Your task to perform on an android device: open app "Instagram" (install if not already installed) and go to login screen Image 0: 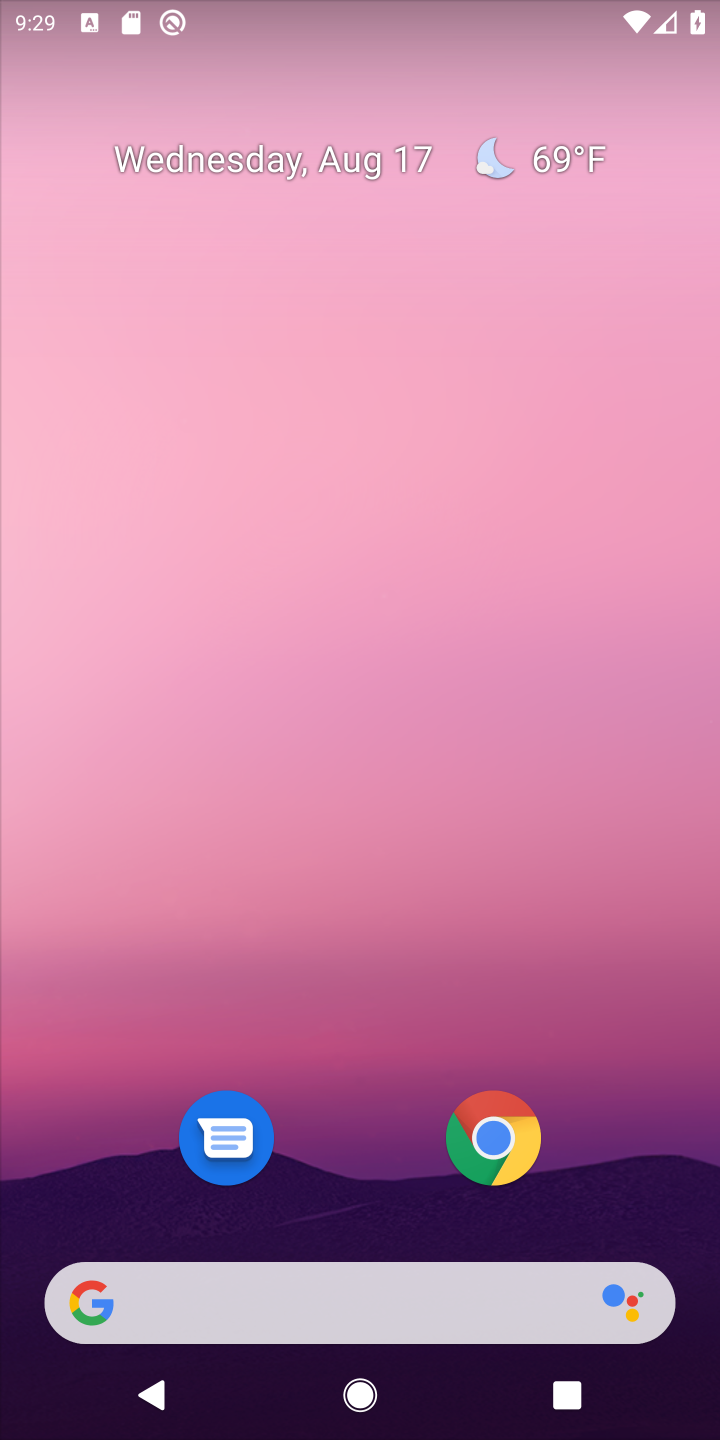
Step 0: drag from (423, 691) to (423, 193)
Your task to perform on an android device: open app "Instagram" (install if not already installed) and go to login screen Image 1: 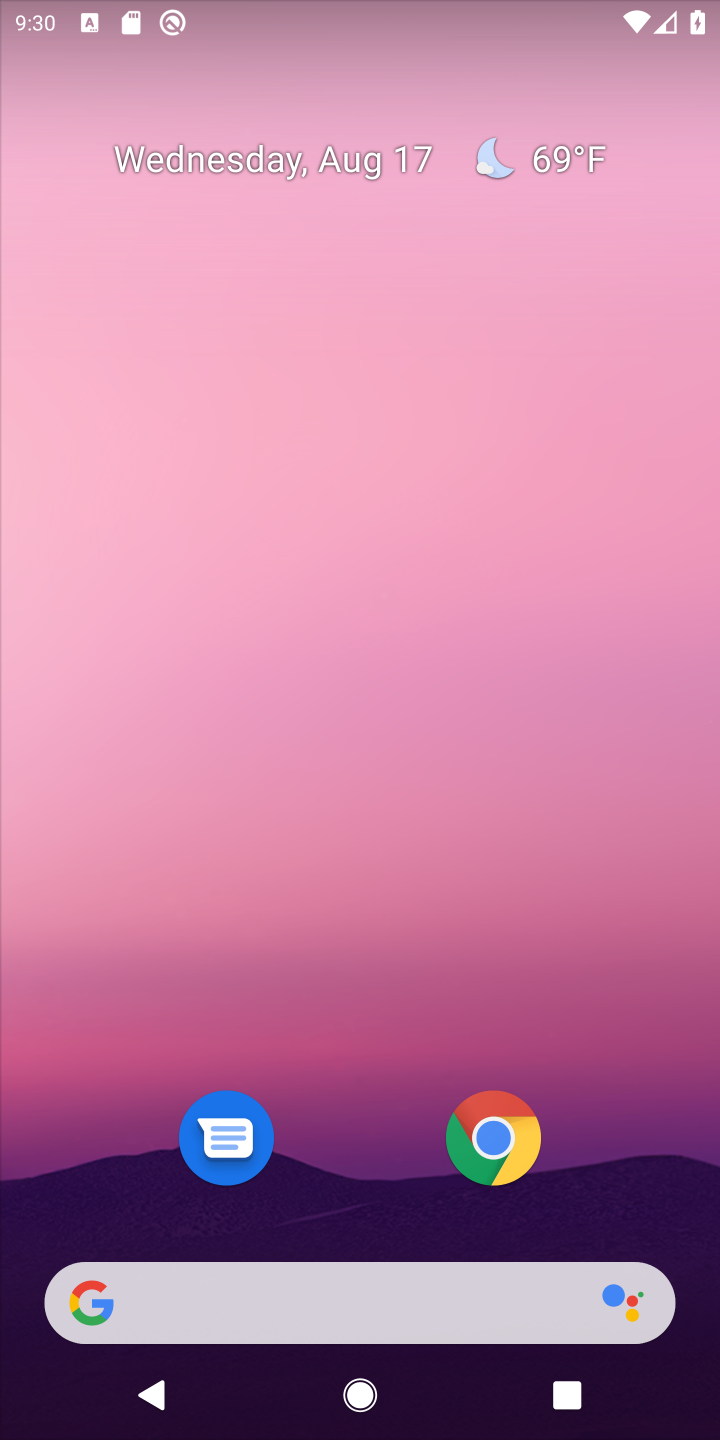
Step 1: drag from (327, 708) to (327, 361)
Your task to perform on an android device: open app "Instagram" (install if not already installed) and go to login screen Image 2: 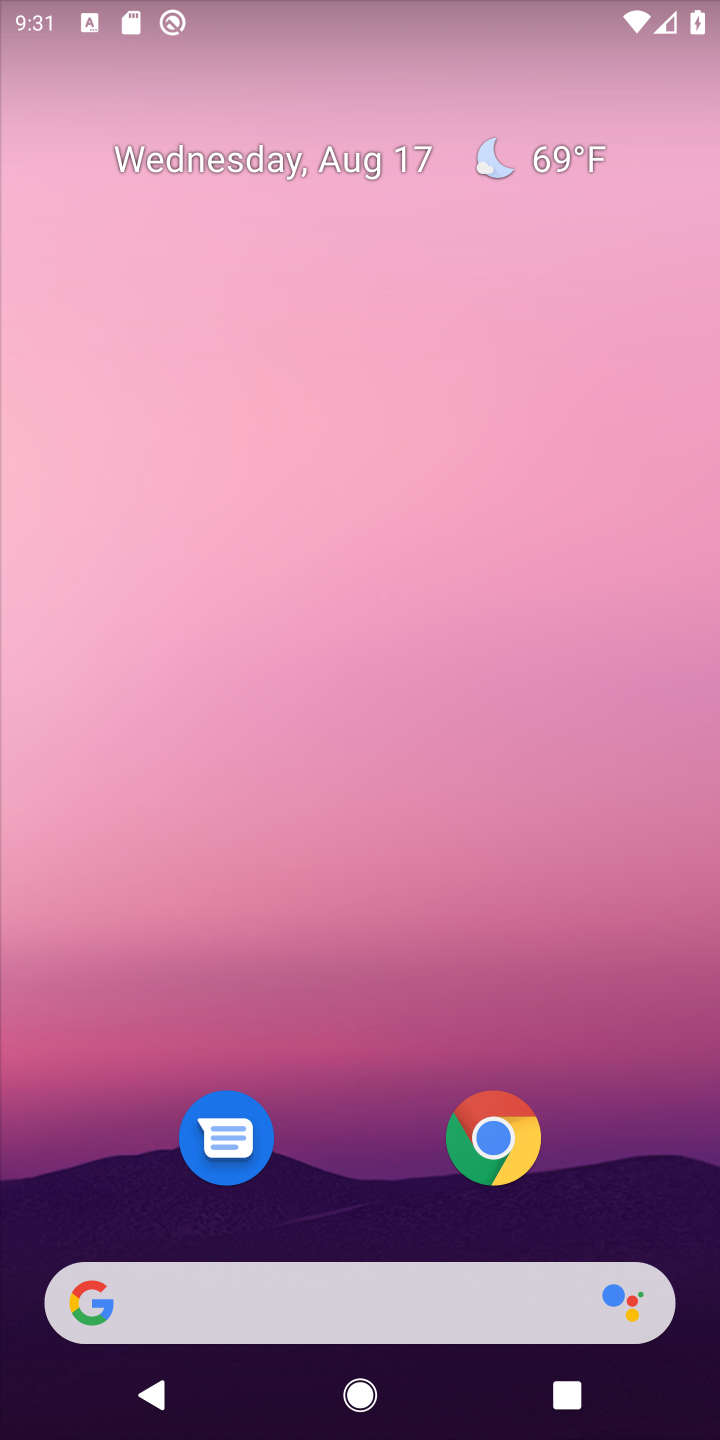
Step 2: drag from (359, 1228) to (364, 200)
Your task to perform on an android device: open app "Instagram" (install if not already installed) and go to login screen Image 3: 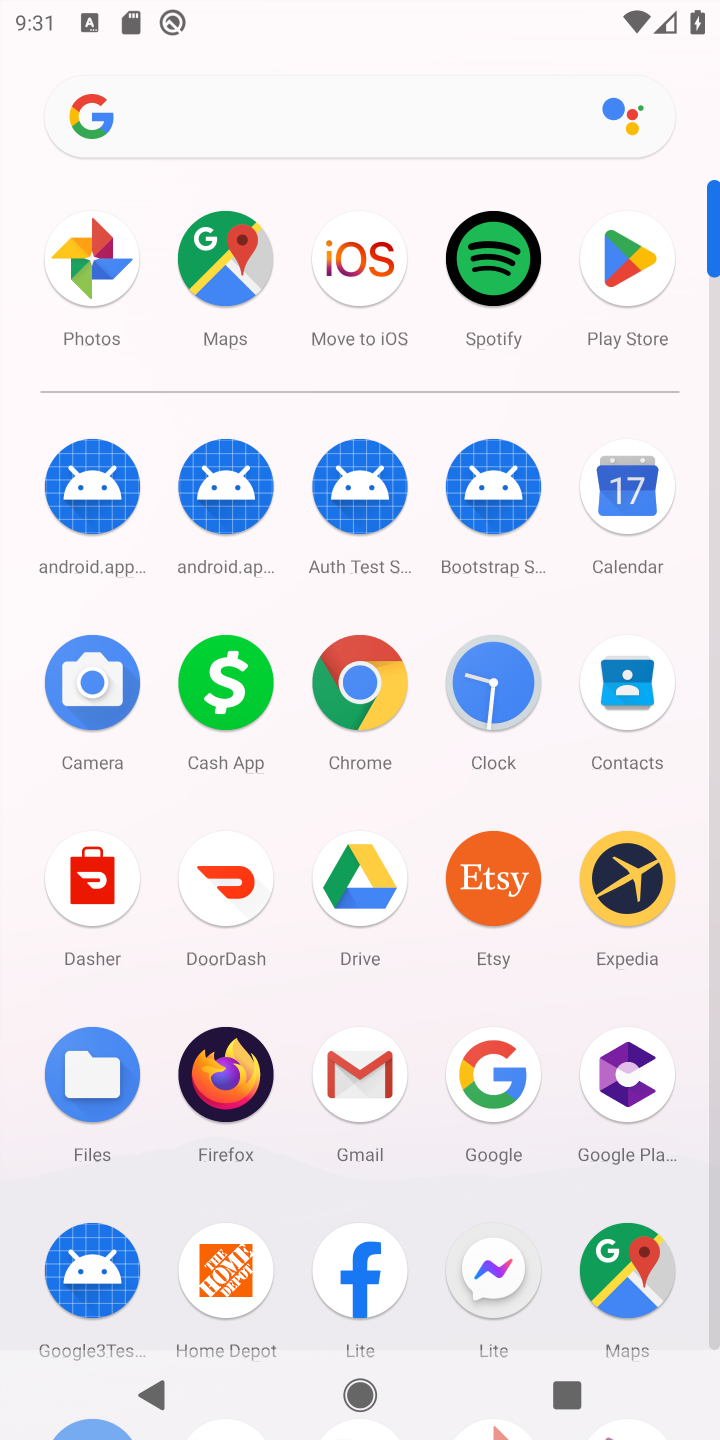
Step 3: click (647, 261)
Your task to perform on an android device: open app "Instagram" (install if not already installed) and go to login screen Image 4: 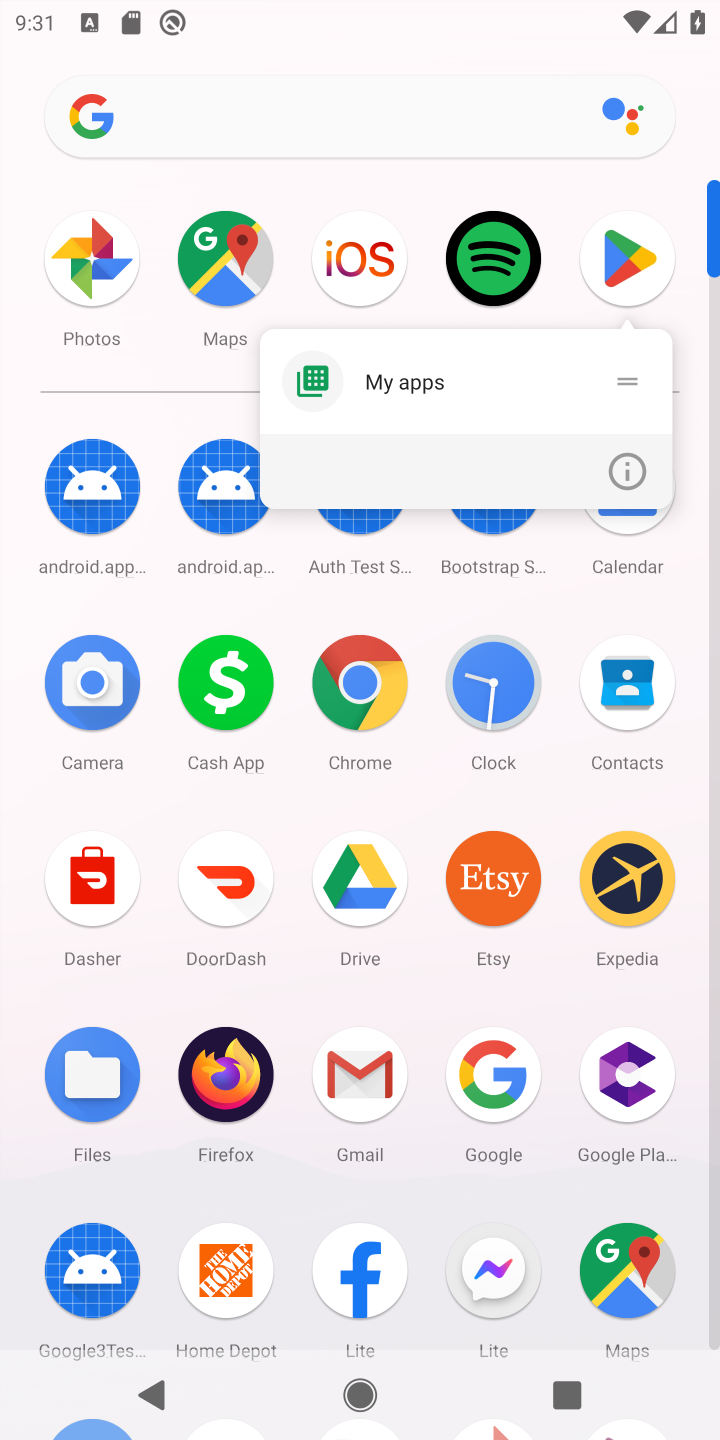
Step 4: click (632, 277)
Your task to perform on an android device: open app "Instagram" (install if not already installed) and go to login screen Image 5: 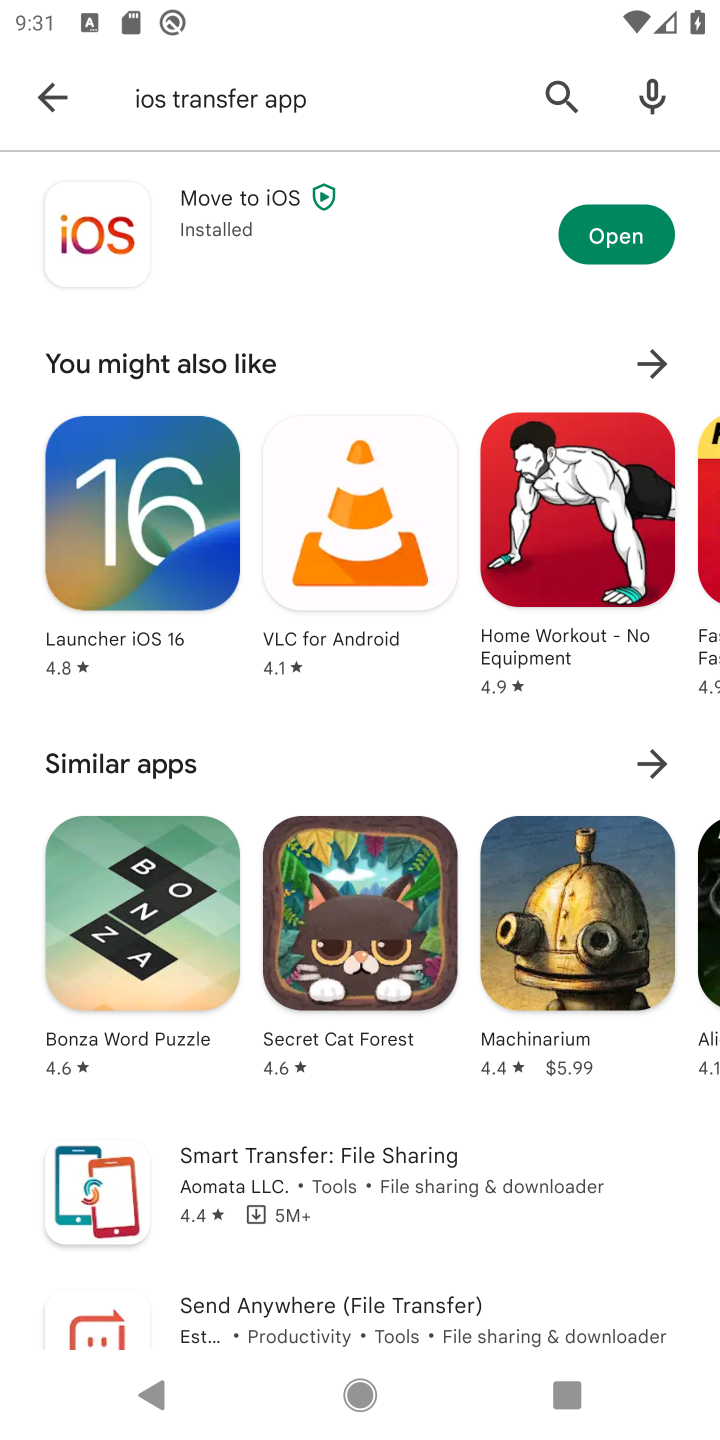
Step 5: click (54, 100)
Your task to perform on an android device: open app "Instagram" (install if not already installed) and go to login screen Image 6: 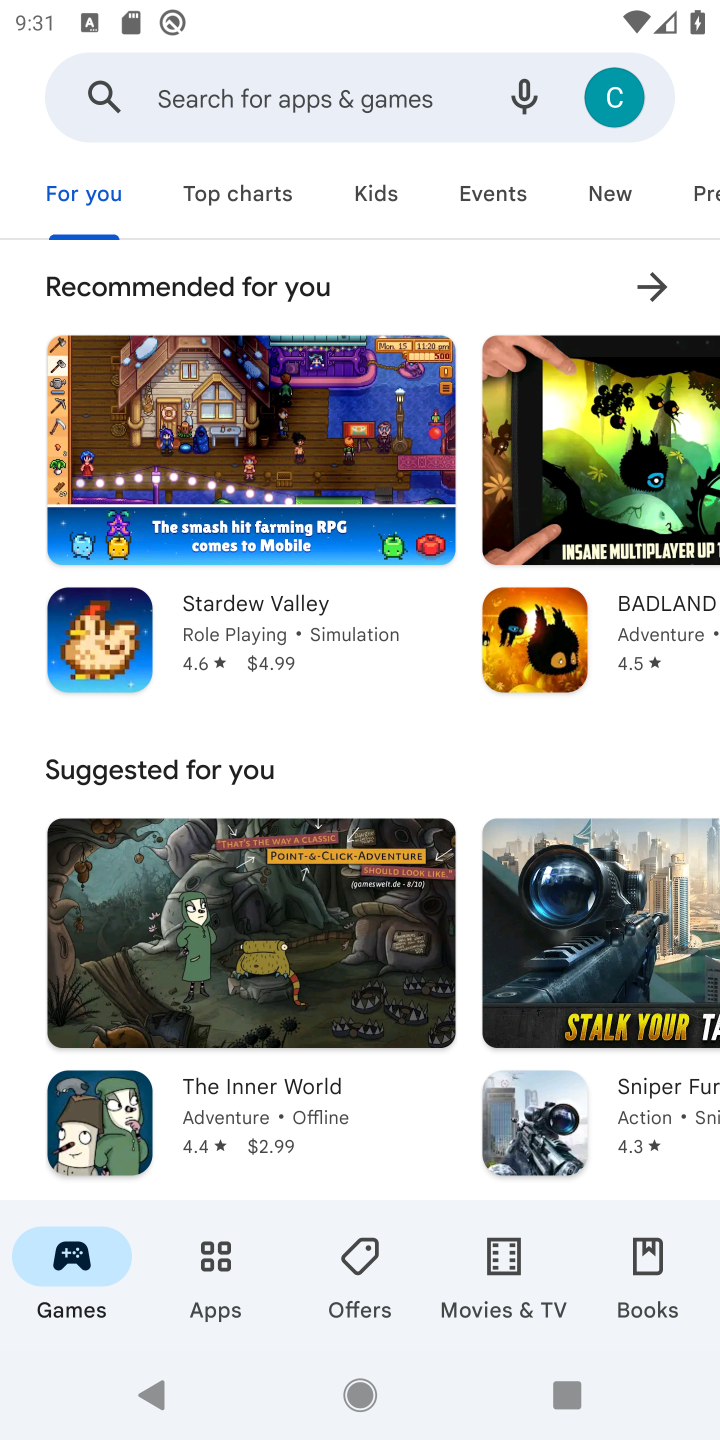
Step 6: click (250, 71)
Your task to perform on an android device: open app "Instagram" (install if not already installed) and go to login screen Image 7: 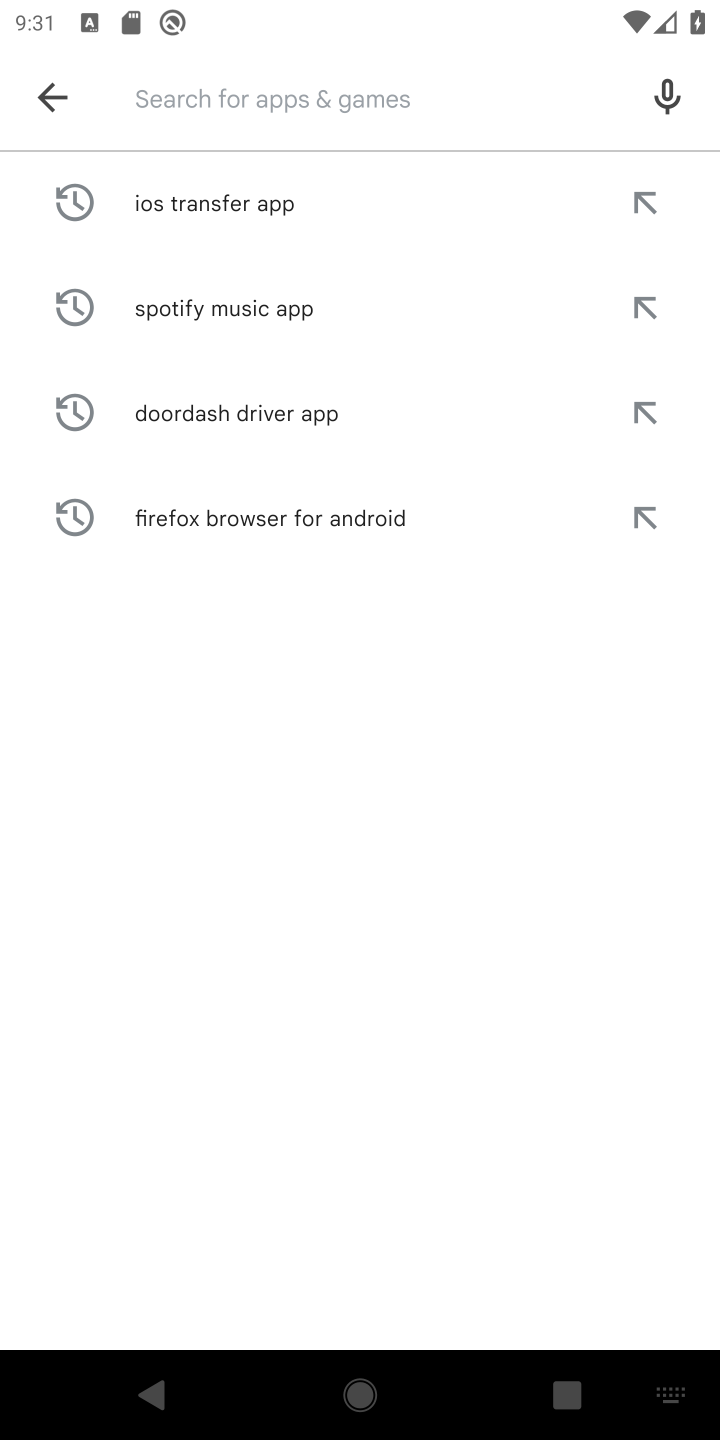
Step 7: type "instagram "
Your task to perform on an android device: open app "Instagram" (install if not already installed) and go to login screen Image 8: 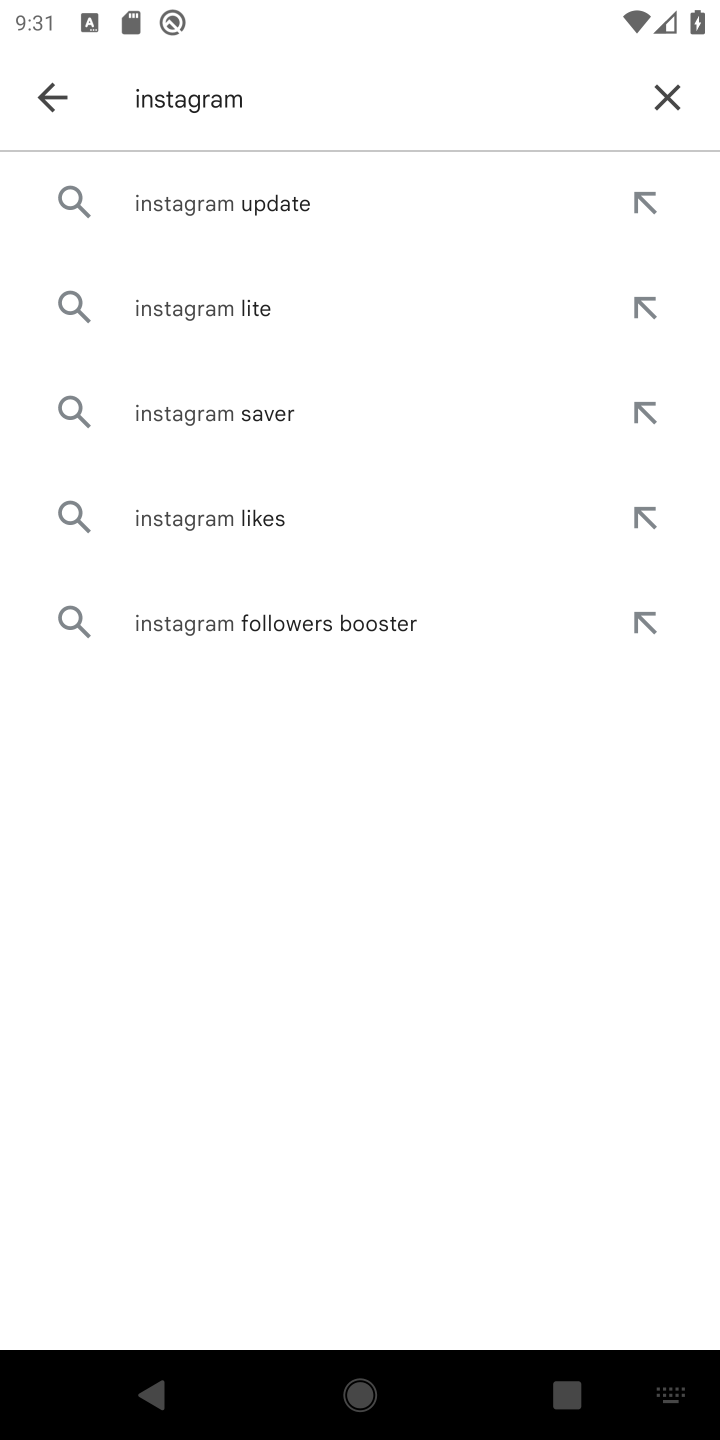
Step 8: click (241, 189)
Your task to perform on an android device: open app "Instagram" (install if not already installed) and go to login screen Image 9: 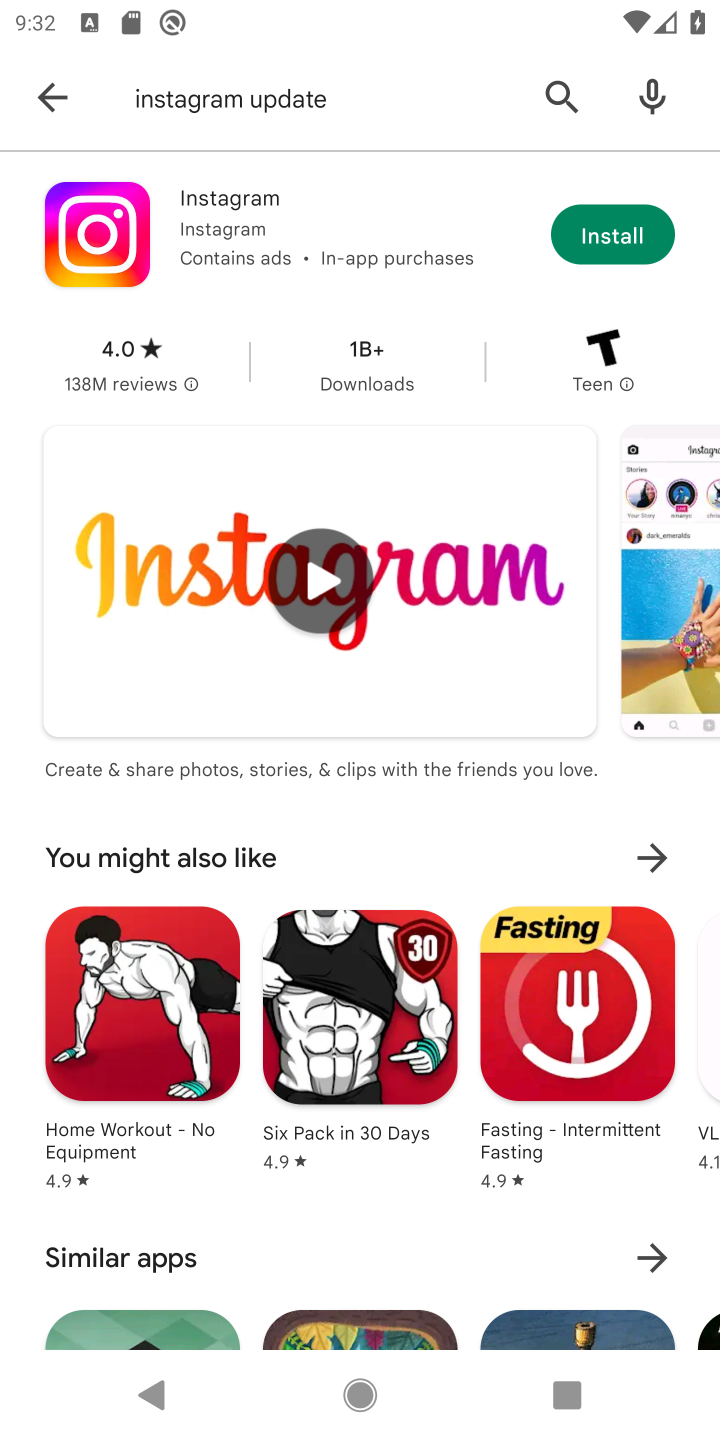
Step 9: click (633, 232)
Your task to perform on an android device: open app "Instagram" (install if not already installed) and go to login screen Image 10: 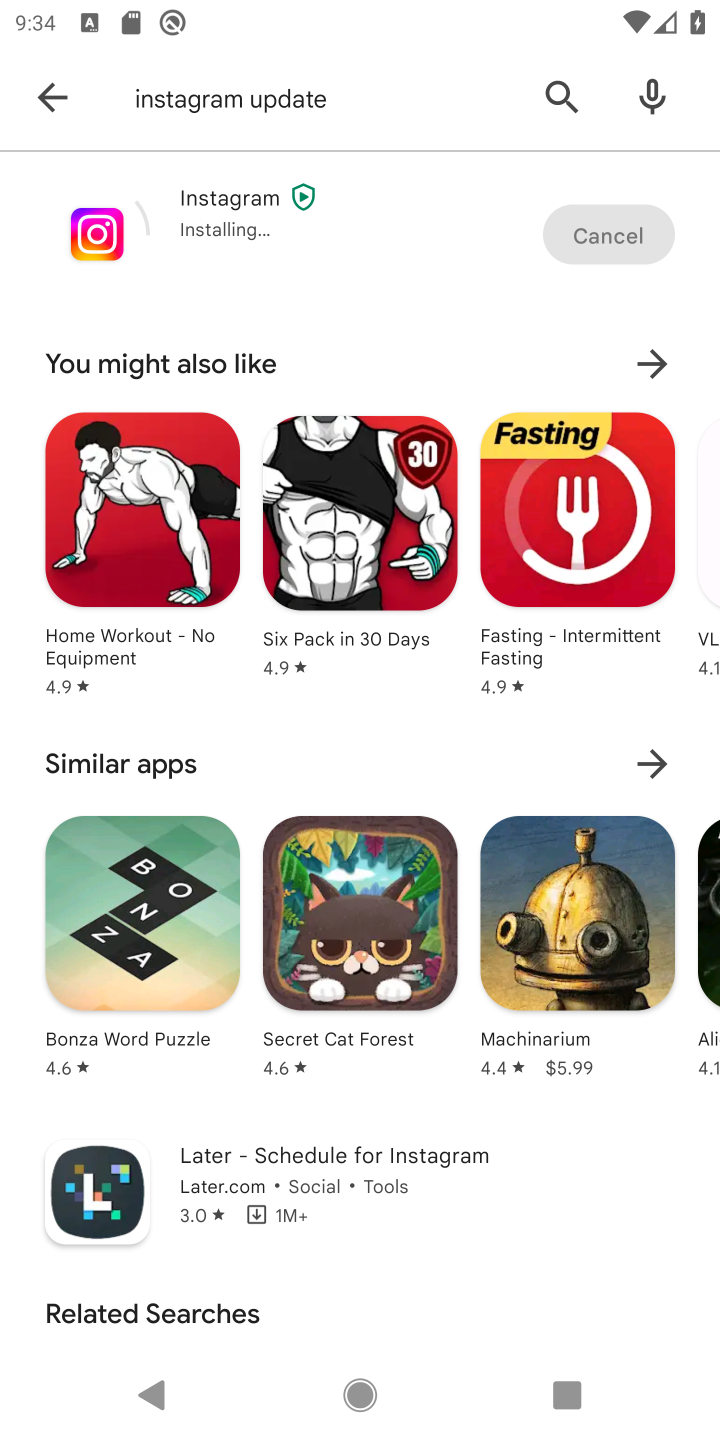
Step 10: task complete